Your task to perform on an android device: Is it going to rain today? Image 0: 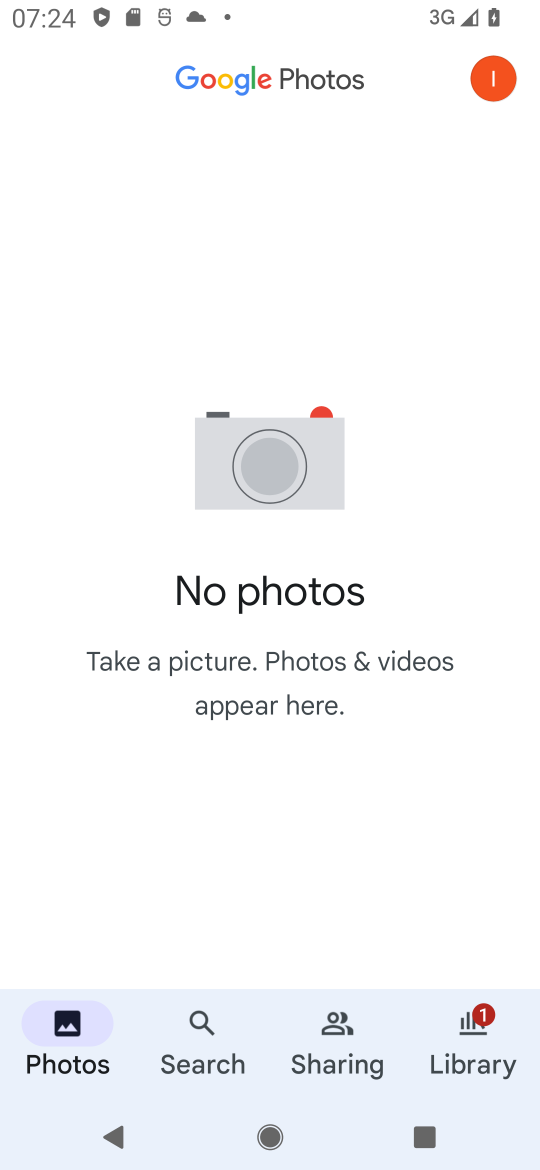
Step 0: press home button
Your task to perform on an android device: Is it going to rain today? Image 1: 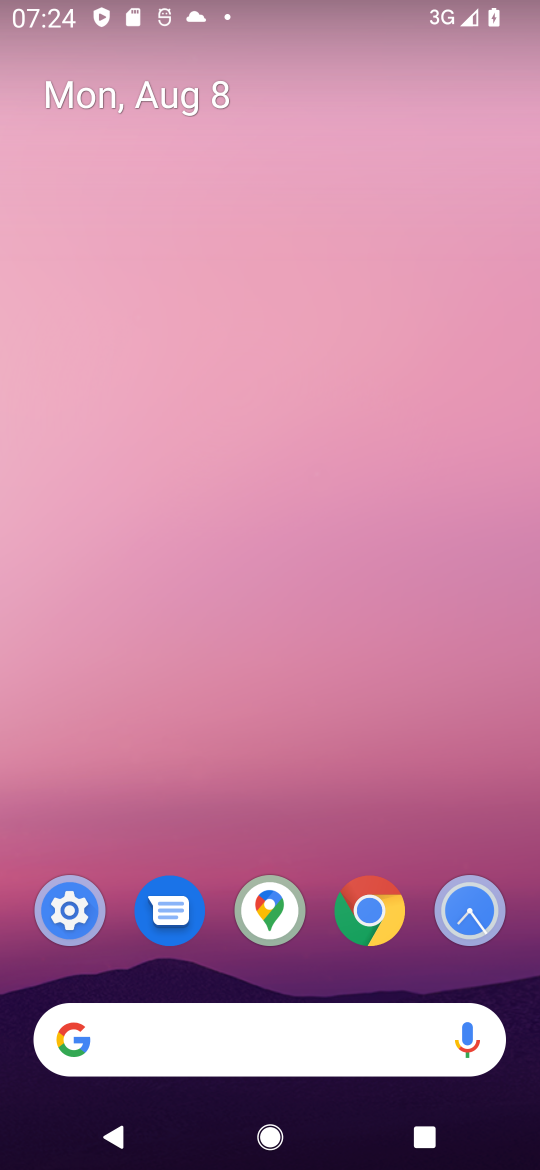
Step 1: drag from (258, 1042) to (306, 501)
Your task to perform on an android device: Is it going to rain today? Image 2: 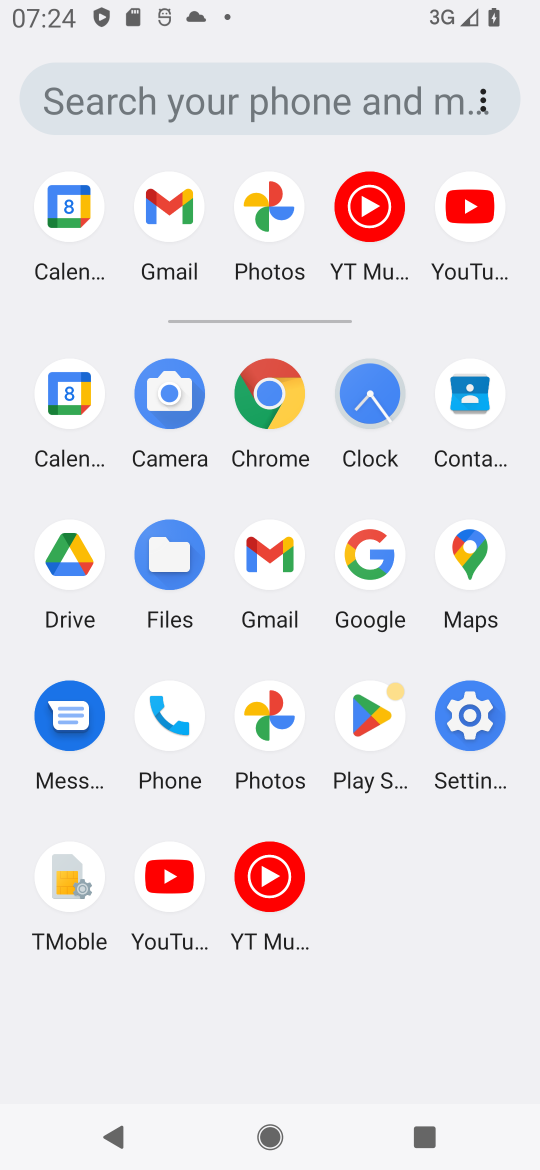
Step 2: click (370, 555)
Your task to perform on an android device: Is it going to rain today? Image 3: 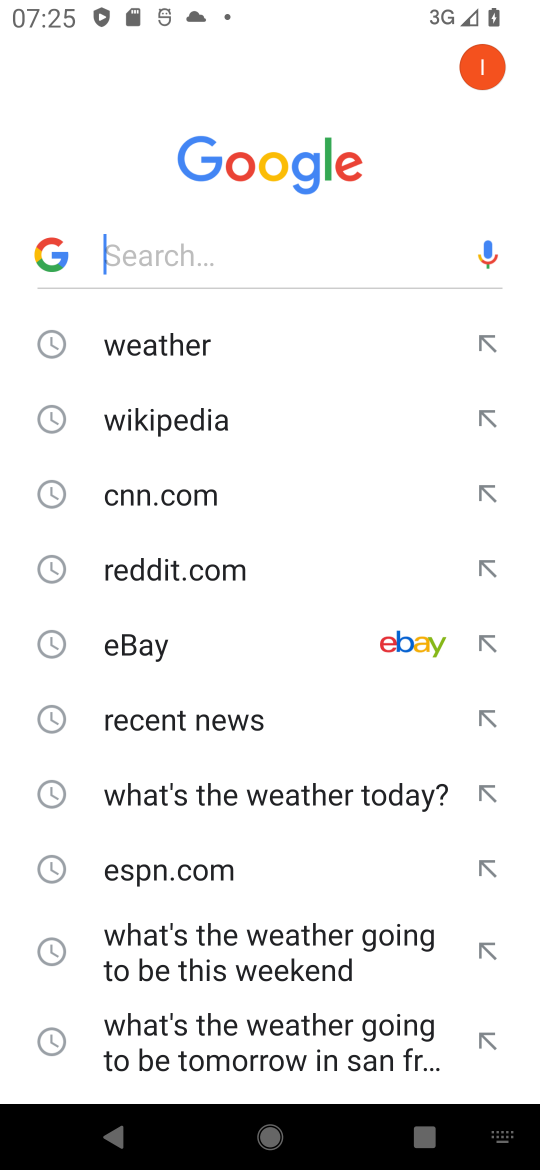
Step 3: type "Is it going to rain today?"
Your task to perform on an android device: Is it going to rain today? Image 4: 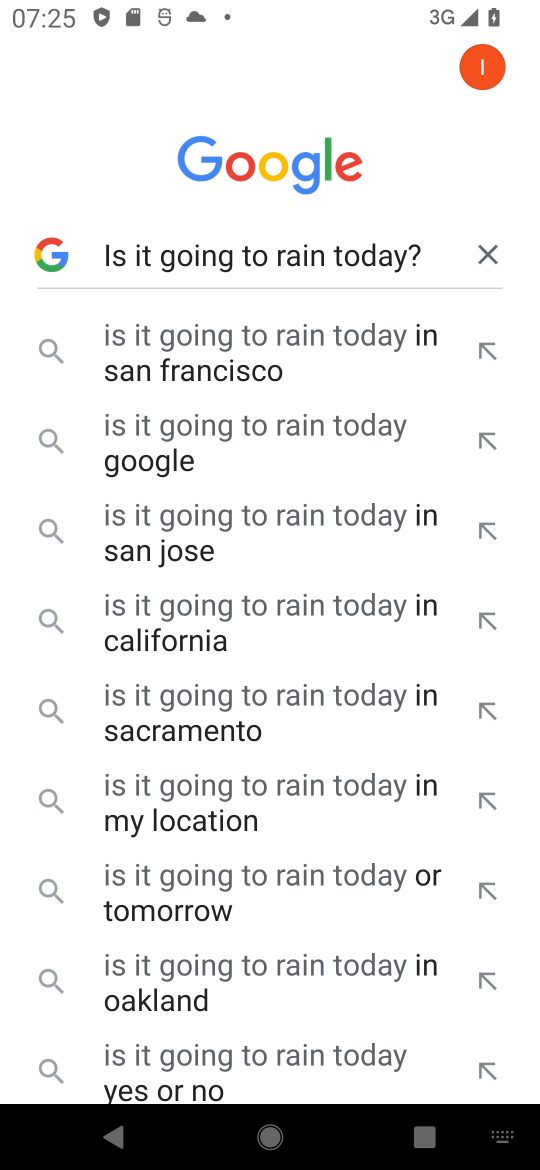
Step 4: click (216, 347)
Your task to perform on an android device: Is it going to rain today? Image 5: 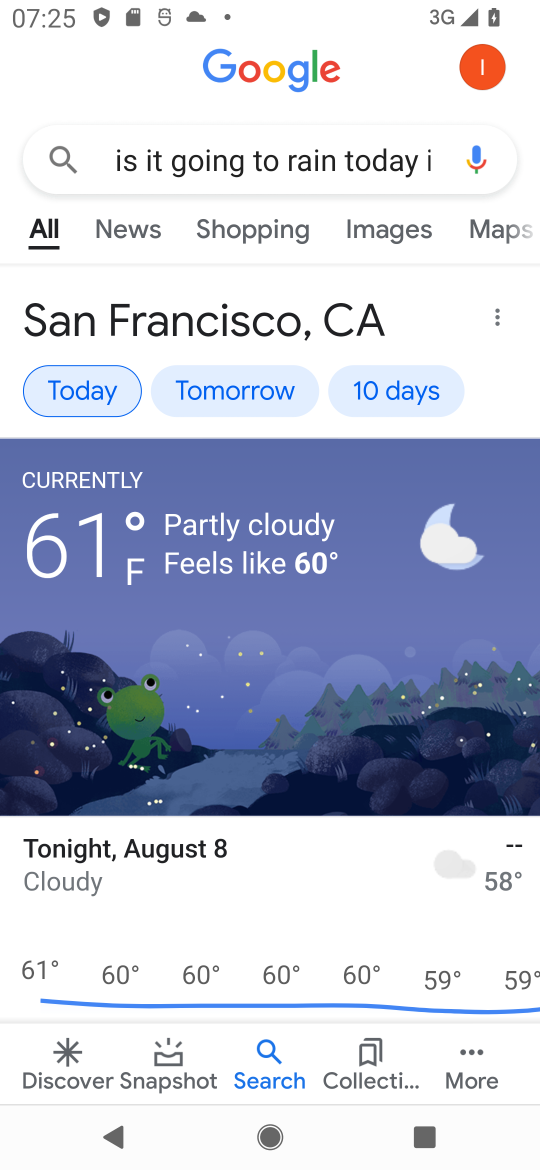
Step 5: task complete